Your task to perform on an android device: toggle show notifications on the lock screen Image 0: 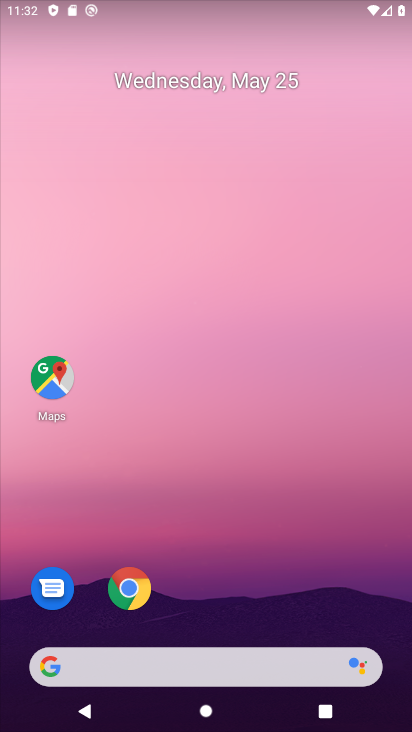
Step 0: drag from (229, 617) to (240, 253)
Your task to perform on an android device: toggle show notifications on the lock screen Image 1: 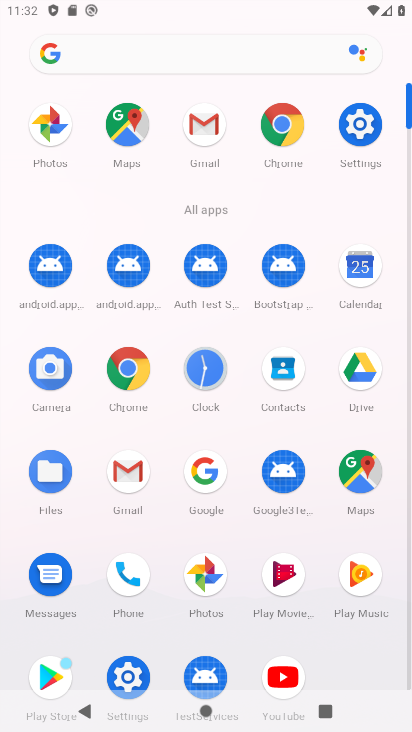
Step 1: click (135, 669)
Your task to perform on an android device: toggle show notifications on the lock screen Image 2: 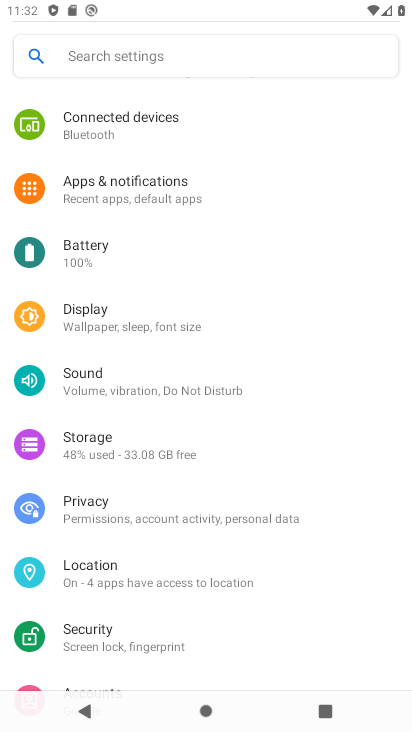
Step 2: click (121, 671)
Your task to perform on an android device: toggle show notifications on the lock screen Image 3: 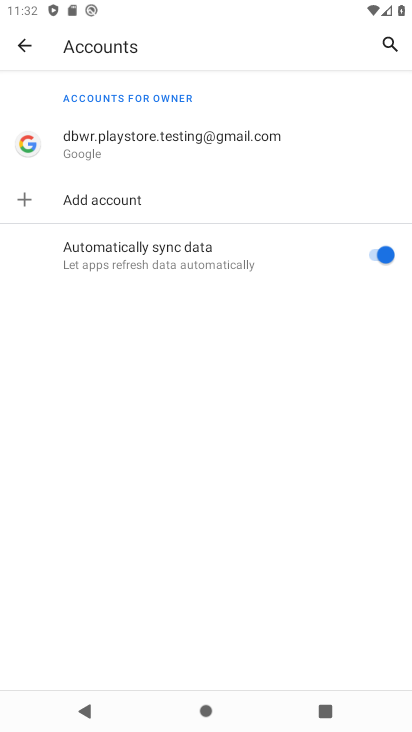
Step 3: click (132, 188)
Your task to perform on an android device: toggle show notifications on the lock screen Image 4: 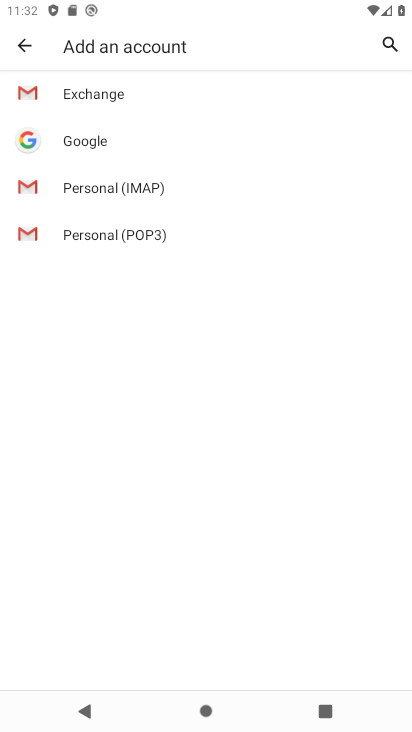
Step 4: click (26, 47)
Your task to perform on an android device: toggle show notifications on the lock screen Image 5: 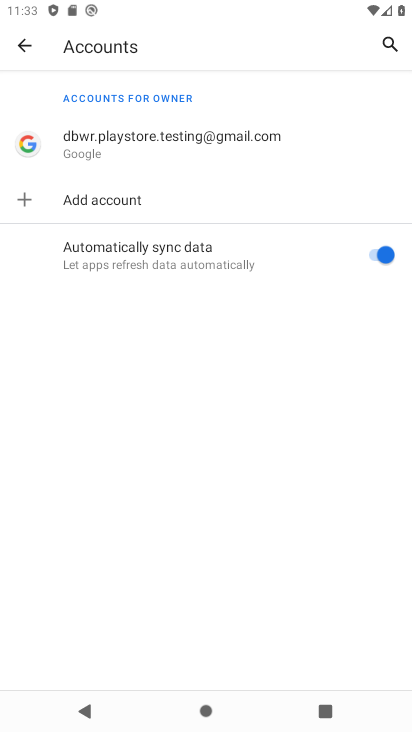
Step 5: click (16, 47)
Your task to perform on an android device: toggle show notifications on the lock screen Image 6: 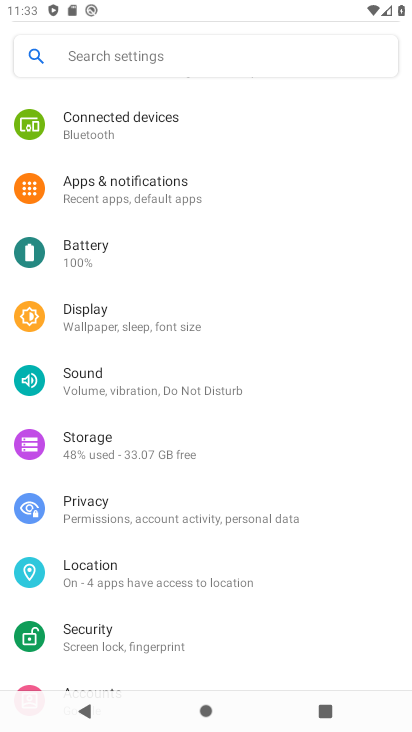
Step 6: click (144, 193)
Your task to perform on an android device: toggle show notifications on the lock screen Image 7: 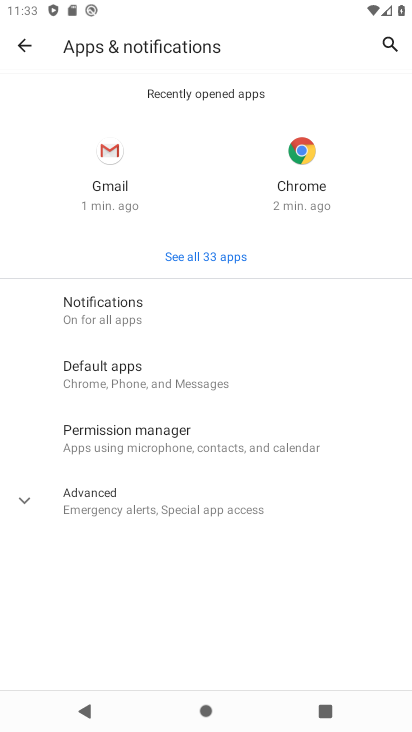
Step 7: click (131, 307)
Your task to perform on an android device: toggle show notifications on the lock screen Image 8: 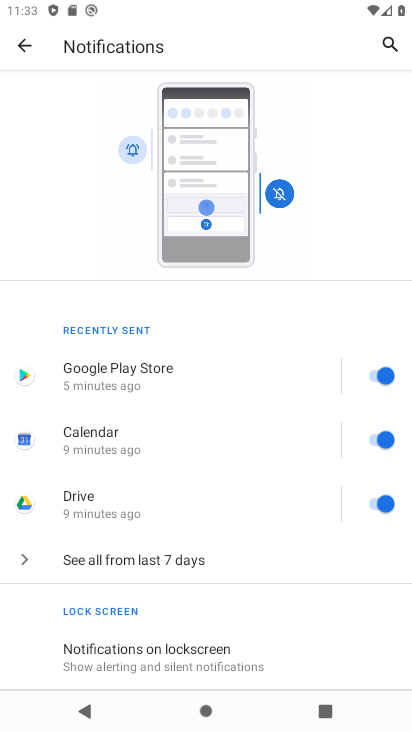
Step 8: click (270, 659)
Your task to perform on an android device: toggle show notifications on the lock screen Image 9: 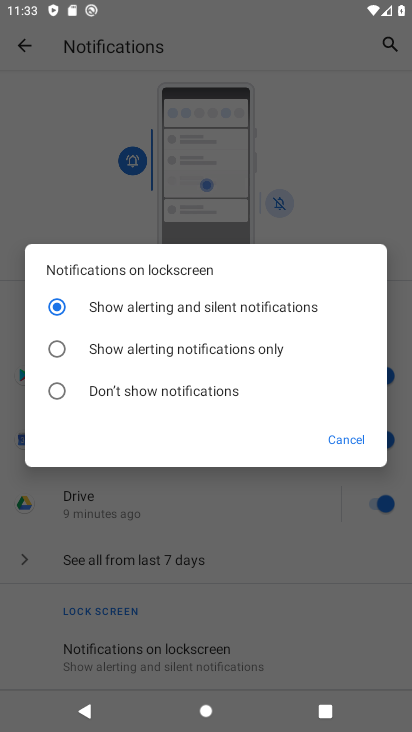
Step 9: task complete